Your task to perform on an android device: Open the phone app and click the voicemail tab. Image 0: 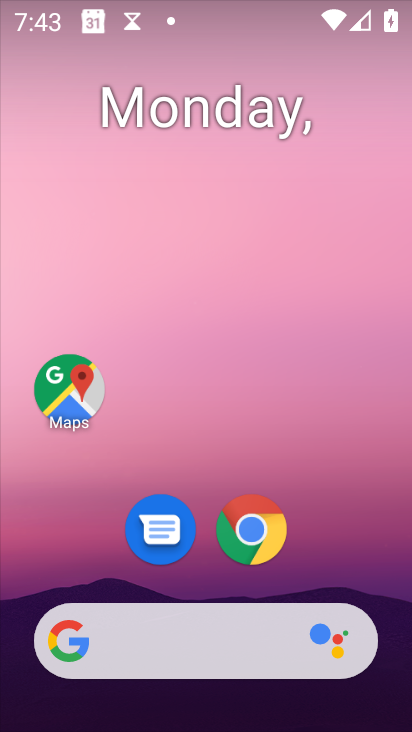
Step 0: drag from (15, 677) to (235, 204)
Your task to perform on an android device: Open the phone app and click the voicemail tab. Image 1: 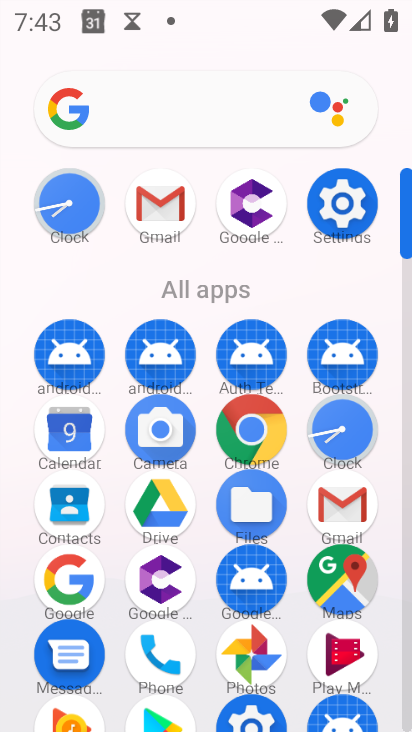
Step 1: click (144, 657)
Your task to perform on an android device: Open the phone app and click the voicemail tab. Image 2: 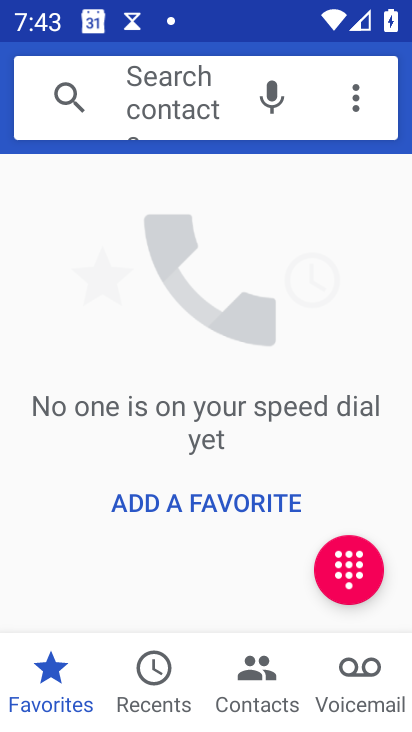
Step 2: click (351, 668)
Your task to perform on an android device: Open the phone app and click the voicemail tab. Image 3: 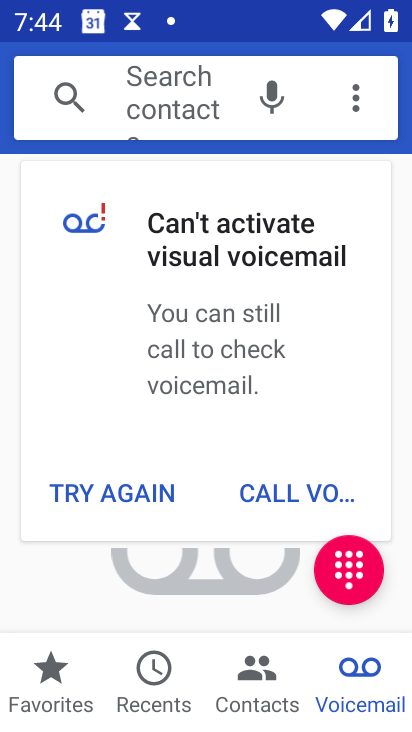
Step 3: task complete